Your task to perform on an android device: toggle airplane mode Image 0: 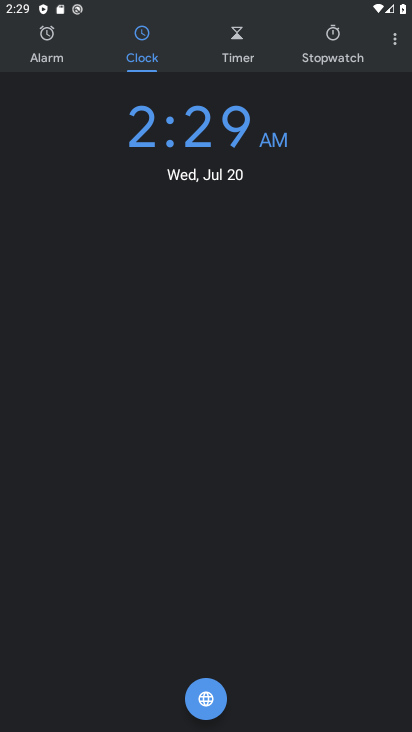
Step 0: press home button
Your task to perform on an android device: toggle airplane mode Image 1: 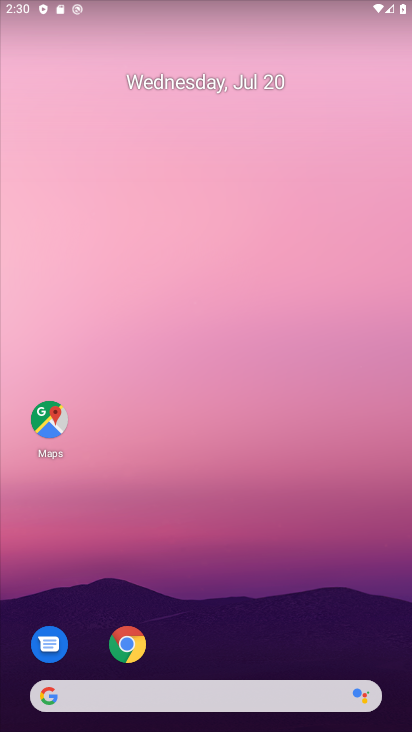
Step 1: drag from (223, 668) to (97, 1)
Your task to perform on an android device: toggle airplane mode Image 2: 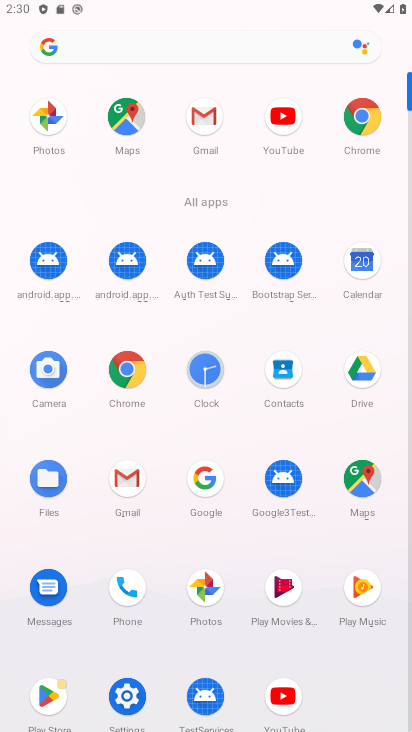
Step 2: click (132, 688)
Your task to perform on an android device: toggle airplane mode Image 3: 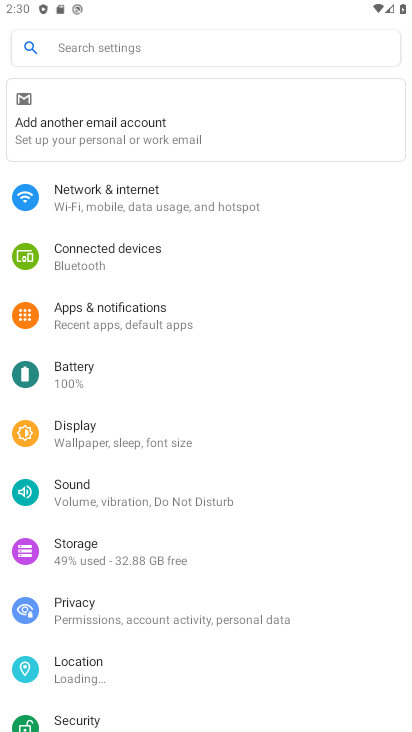
Step 3: task complete